Your task to perform on an android device: toggle notification dots Image 0: 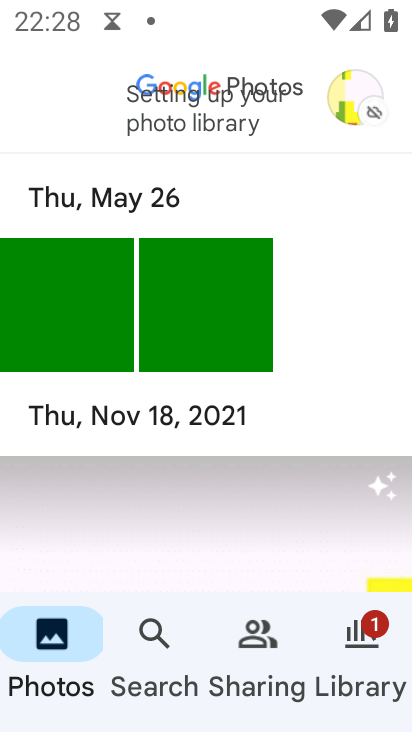
Step 0: press home button
Your task to perform on an android device: toggle notification dots Image 1: 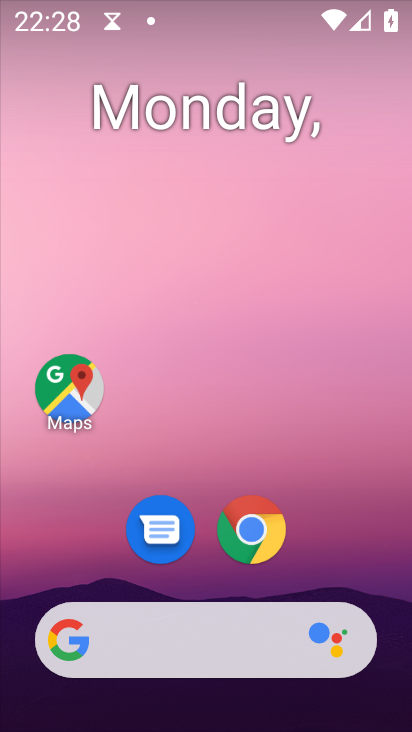
Step 1: drag from (331, 552) to (308, 163)
Your task to perform on an android device: toggle notification dots Image 2: 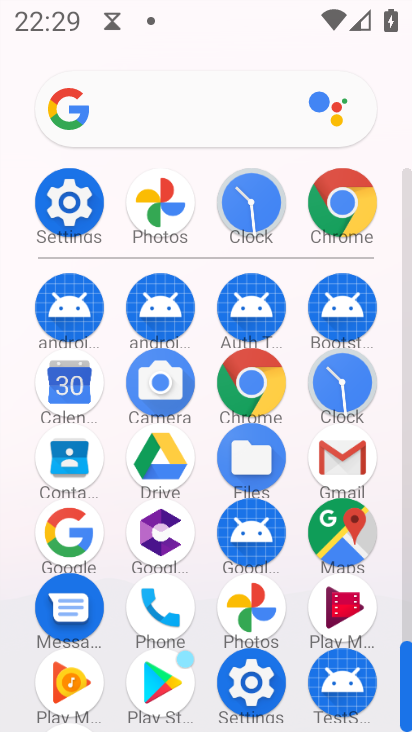
Step 2: click (68, 202)
Your task to perform on an android device: toggle notification dots Image 3: 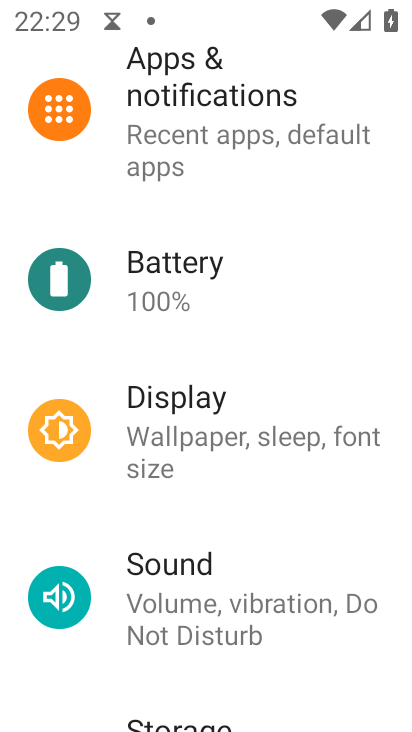
Step 3: drag from (187, 199) to (190, 376)
Your task to perform on an android device: toggle notification dots Image 4: 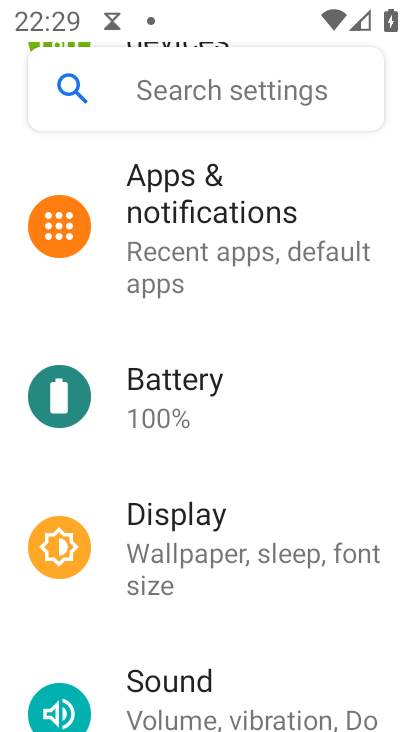
Step 4: click (248, 219)
Your task to perform on an android device: toggle notification dots Image 5: 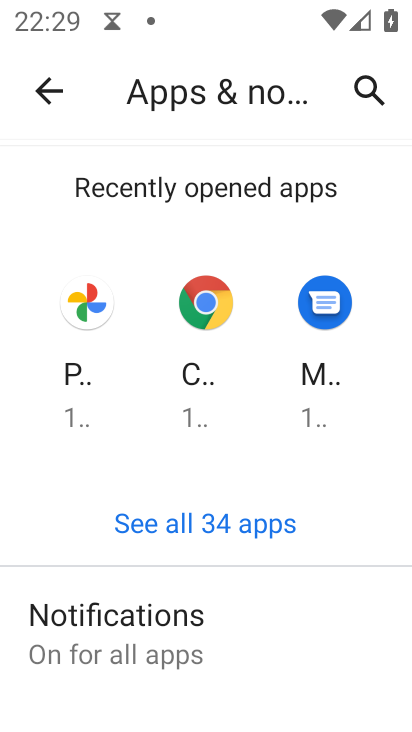
Step 5: click (85, 610)
Your task to perform on an android device: toggle notification dots Image 6: 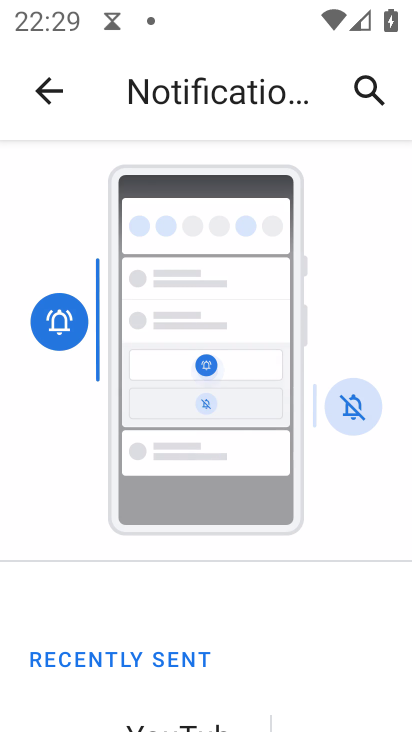
Step 6: drag from (139, 612) to (195, 449)
Your task to perform on an android device: toggle notification dots Image 7: 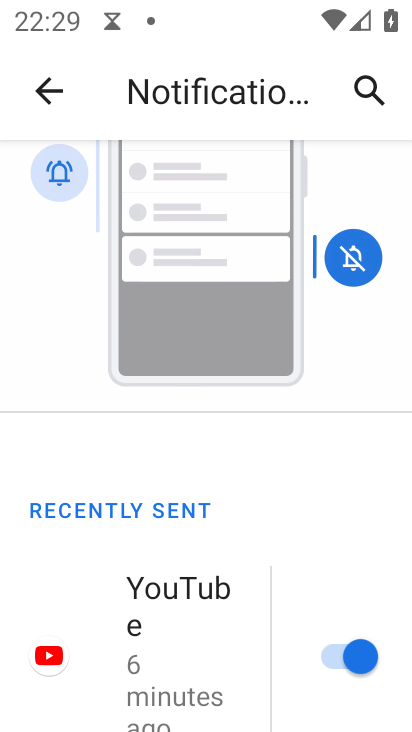
Step 7: drag from (94, 595) to (181, 386)
Your task to perform on an android device: toggle notification dots Image 8: 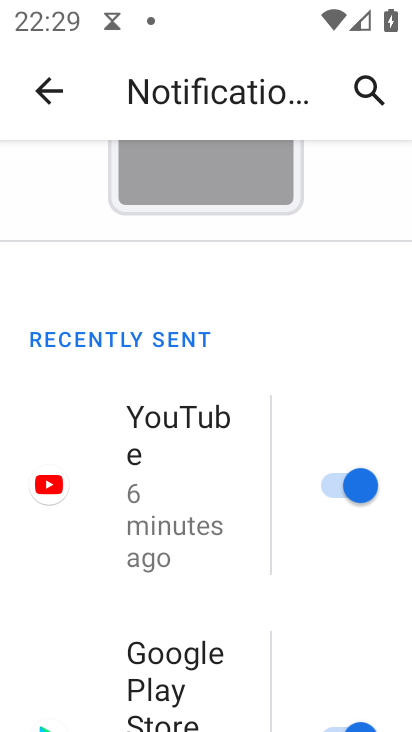
Step 8: drag from (164, 619) to (237, 409)
Your task to perform on an android device: toggle notification dots Image 9: 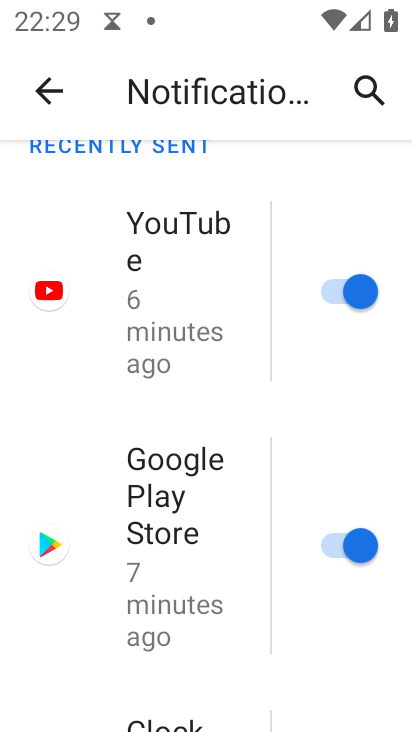
Step 9: drag from (174, 673) to (233, 412)
Your task to perform on an android device: toggle notification dots Image 10: 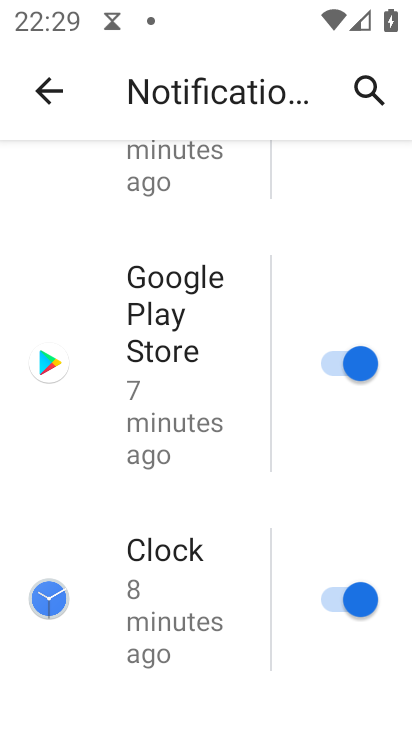
Step 10: drag from (169, 667) to (248, 430)
Your task to perform on an android device: toggle notification dots Image 11: 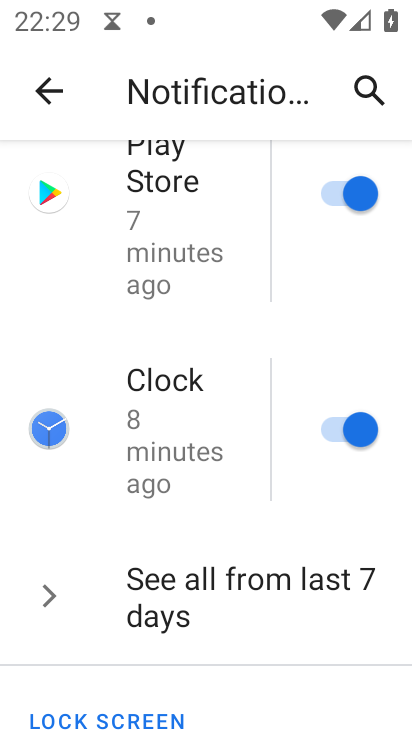
Step 11: drag from (197, 653) to (265, 468)
Your task to perform on an android device: toggle notification dots Image 12: 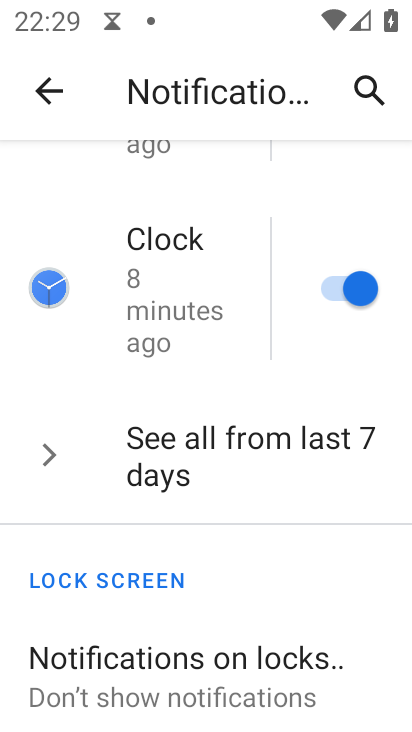
Step 12: drag from (232, 623) to (281, 497)
Your task to perform on an android device: toggle notification dots Image 13: 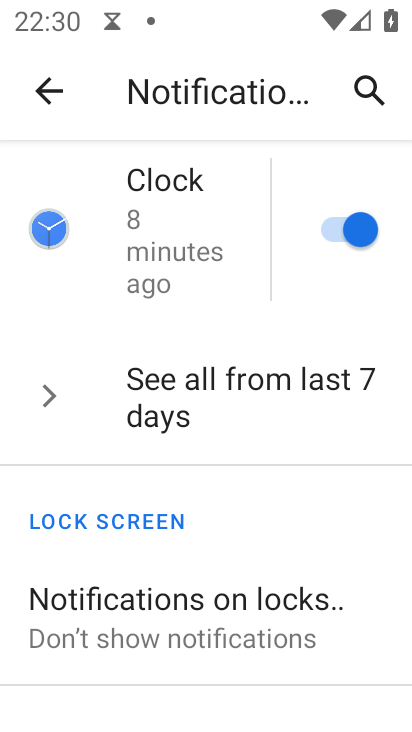
Step 13: drag from (254, 660) to (302, 446)
Your task to perform on an android device: toggle notification dots Image 14: 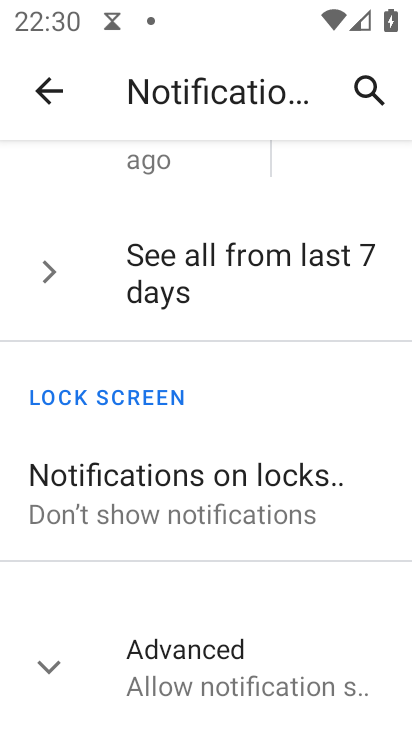
Step 14: click (233, 677)
Your task to perform on an android device: toggle notification dots Image 15: 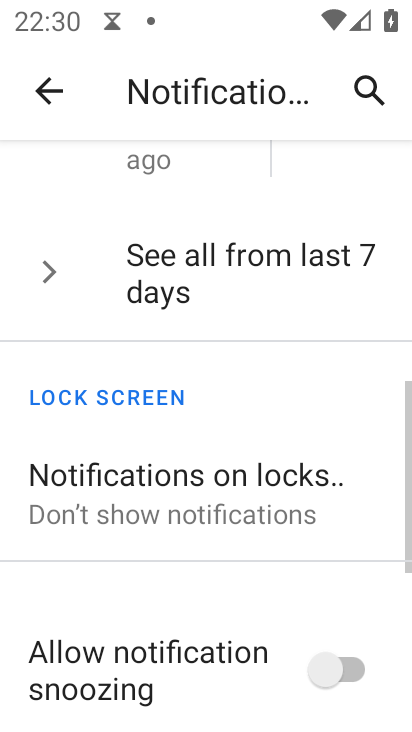
Step 15: drag from (233, 677) to (249, 506)
Your task to perform on an android device: toggle notification dots Image 16: 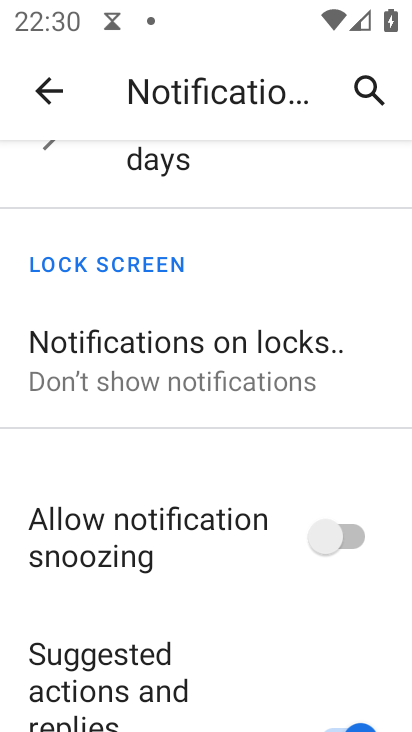
Step 16: drag from (228, 688) to (283, 492)
Your task to perform on an android device: toggle notification dots Image 17: 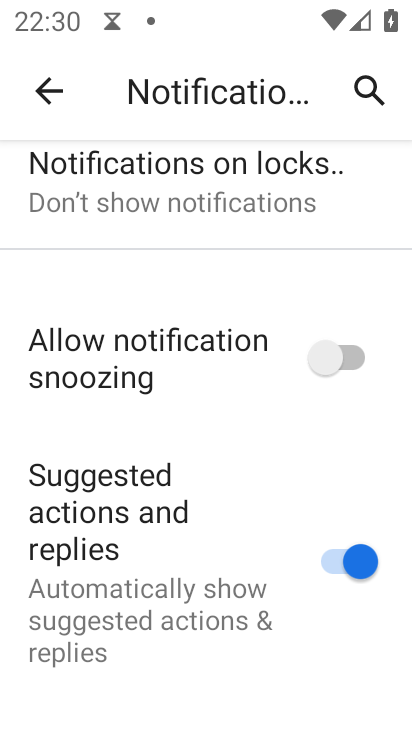
Step 17: drag from (224, 652) to (311, 503)
Your task to perform on an android device: toggle notification dots Image 18: 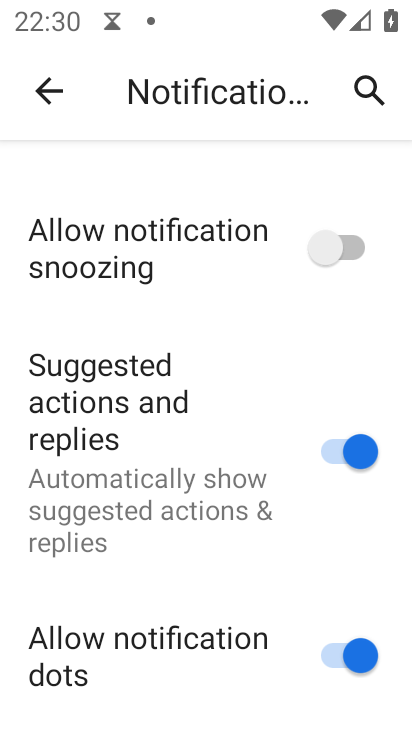
Step 18: click (354, 654)
Your task to perform on an android device: toggle notification dots Image 19: 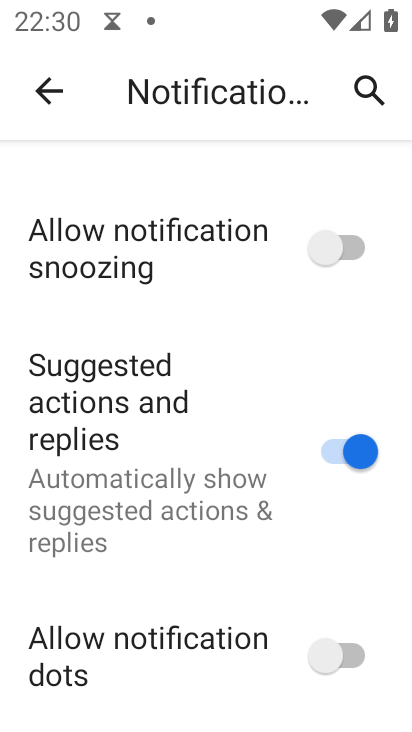
Step 19: task complete